Your task to perform on an android device: Open location settings Image 0: 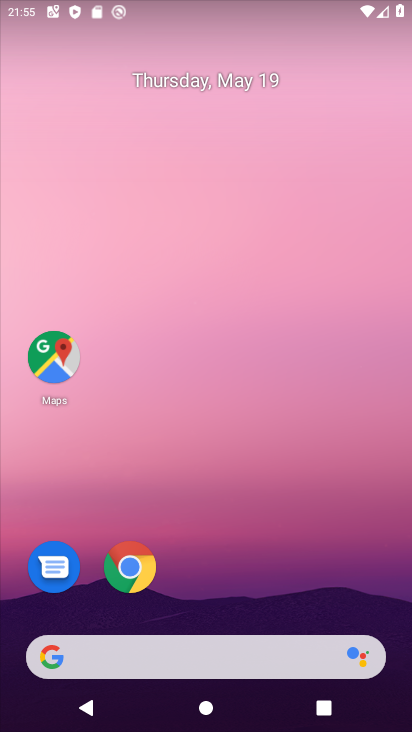
Step 0: press home button
Your task to perform on an android device: Open location settings Image 1: 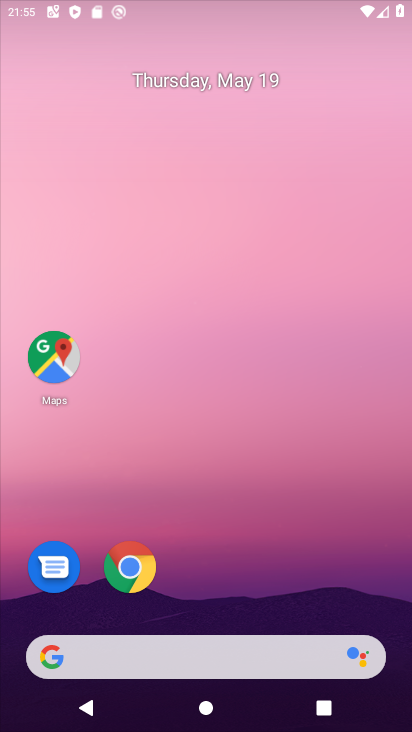
Step 1: click (208, 12)
Your task to perform on an android device: Open location settings Image 2: 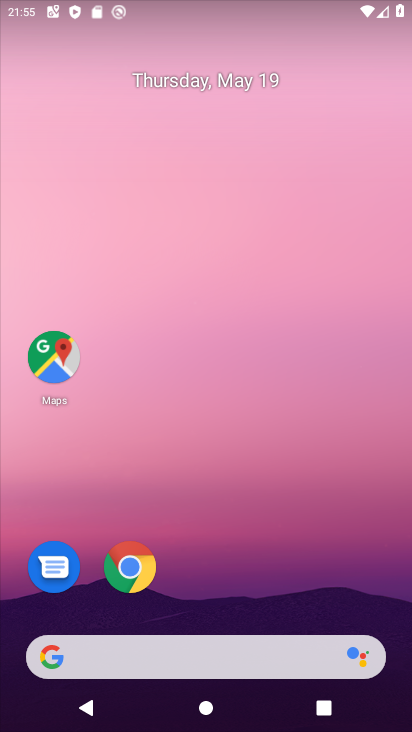
Step 2: drag from (212, 586) to (227, 6)
Your task to perform on an android device: Open location settings Image 3: 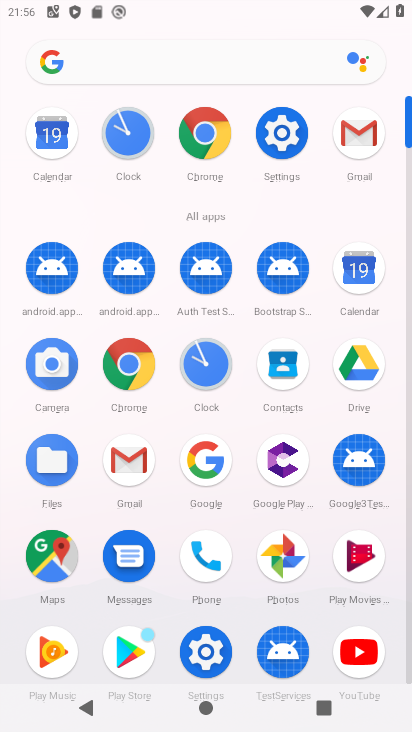
Step 3: click (286, 123)
Your task to perform on an android device: Open location settings Image 4: 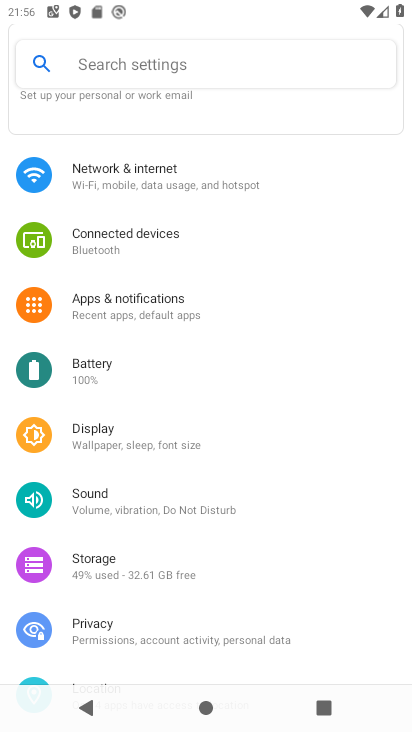
Step 4: drag from (160, 606) to (180, 87)
Your task to perform on an android device: Open location settings Image 5: 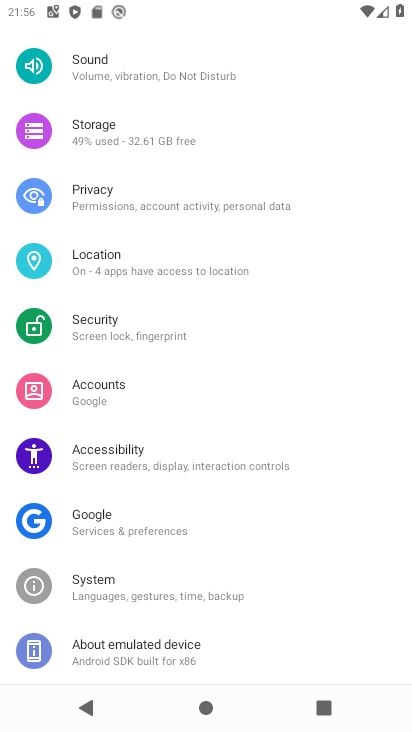
Step 5: click (150, 256)
Your task to perform on an android device: Open location settings Image 6: 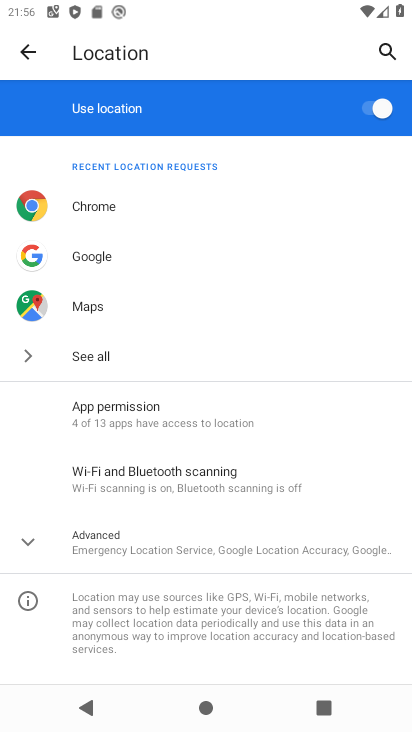
Step 6: click (21, 529)
Your task to perform on an android device: Open location settings Image 7: 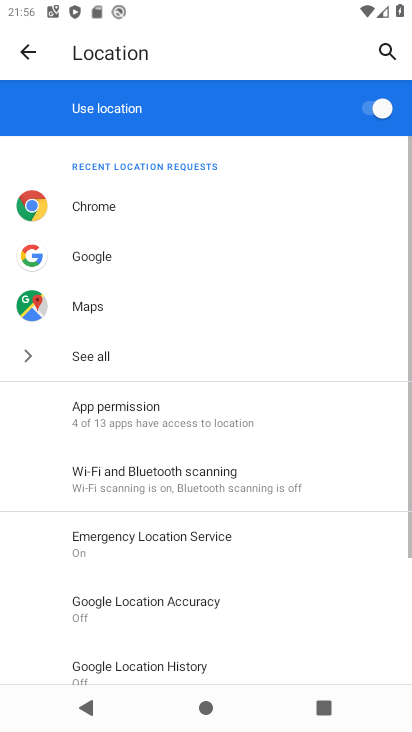
Step 7: drag from (110, 563) to (106, 361)
Your task to perform on an android device: Open location settings Image 8: 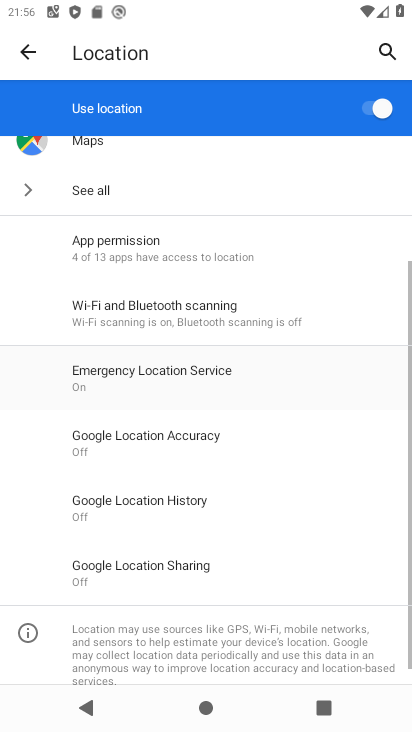
Step 8: click (114, 302)
Your task to perform on an android device: Open location settings Image 9: 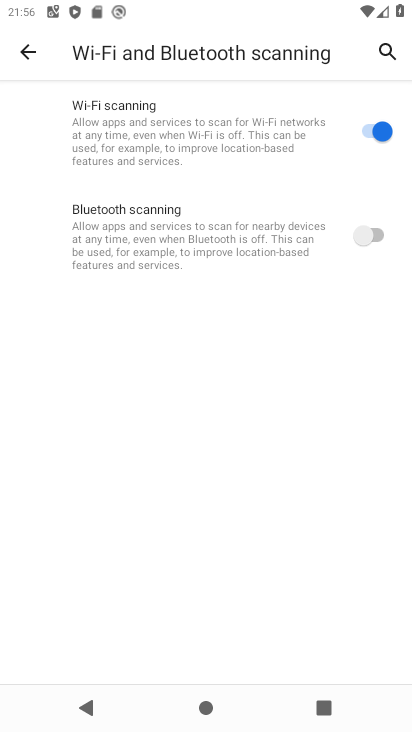
Step 9: task complete